Your task to perform on an android device: Open Youtube and go to the subscriptions tab Image 0: 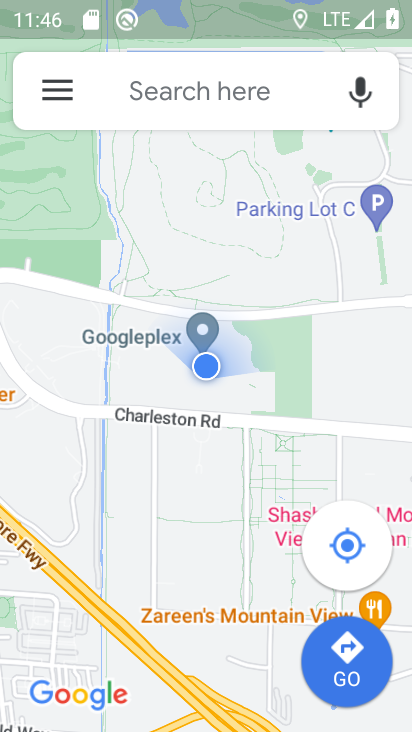
Step 0: press home button
Your task to perform on an android device: Open Youtube and go to the subscriptions tab Image 1: 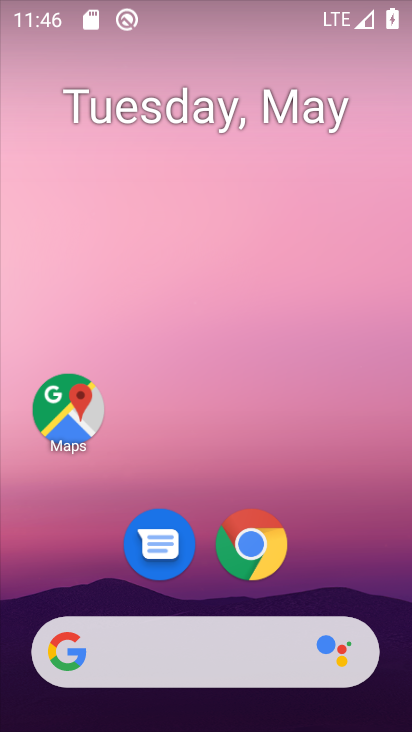
Step 1: drag from (211, 489) to (224, 203)
Your task to perform on an android device: Open Youtube and go to the subscriptions tab Image 2: 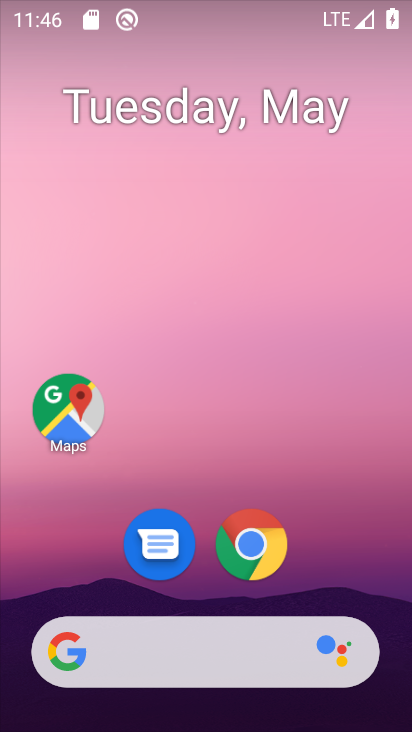
Step 2: drag from (234, 440) to (279, 90)
Your task to perform on an android device: Open Youtube and go to the subscriptions tab Image 3: 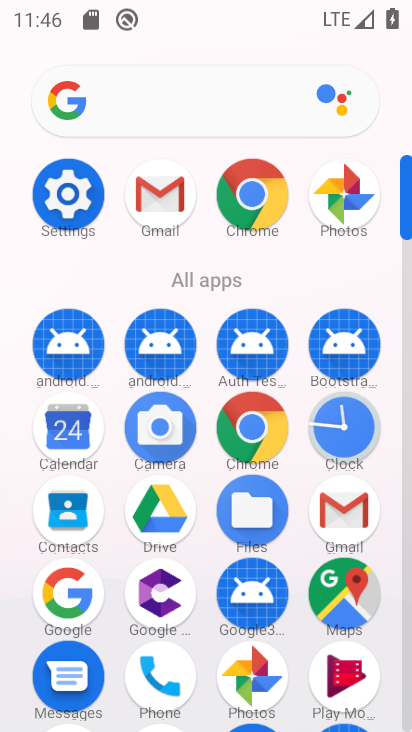
Step 3: drag from (206, 281) to (213, 46)
Your task to perform on an android device: Open Youtube and go to the subscriptions tab Image 4: 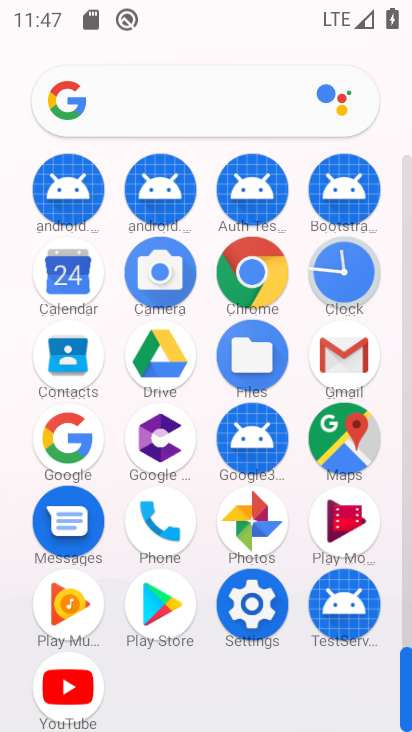
Step 4: drag from (211, 271) to (198, 76)
Your task to perform on an android device: Open Youtube and go to the subscriptions tab Image 5: 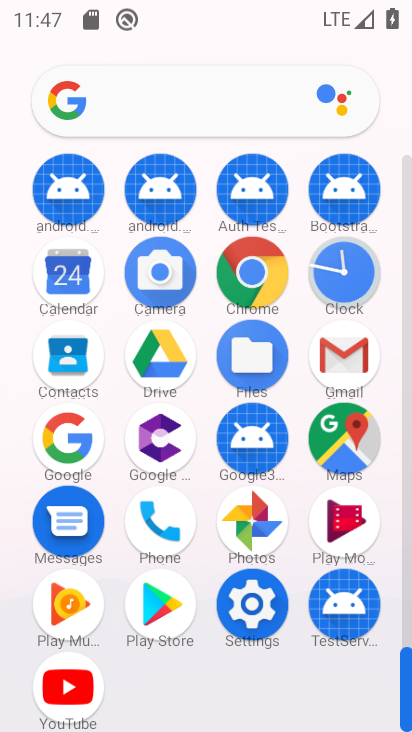
Step 5: click (80, 700)
Your task to perform on an android device: Open Youtube and go to the subscriptions tab Image 6: 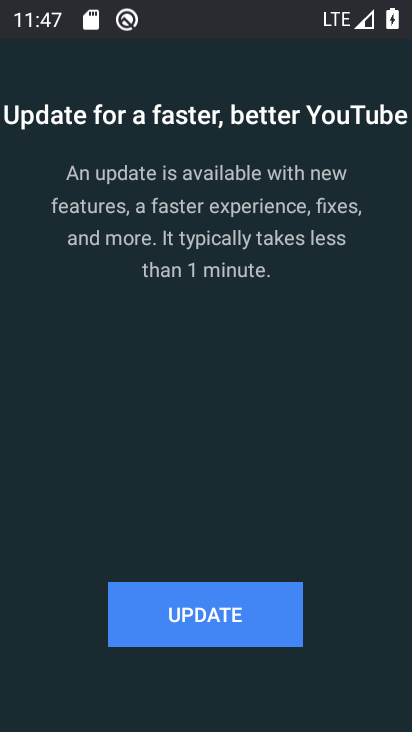
Step 6: click (195, 643)
Your task to perform on an android device: Open Youtube and go to the subscriptions tab Image 7: 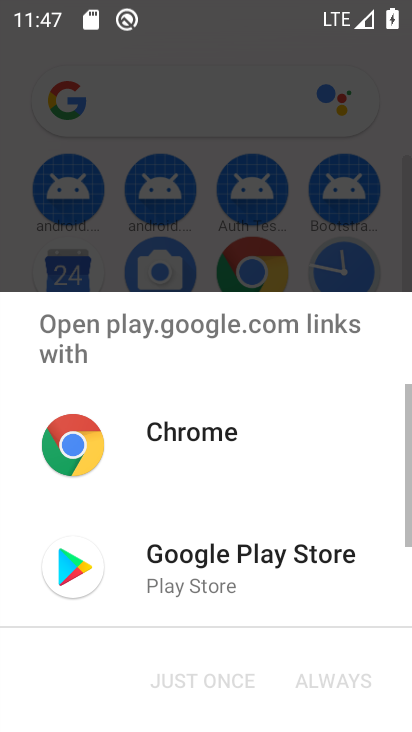
Step 7: click (168, 550)
Your task to perform on an android device: Open Youtube and go to the subscriptions tab Image 8: 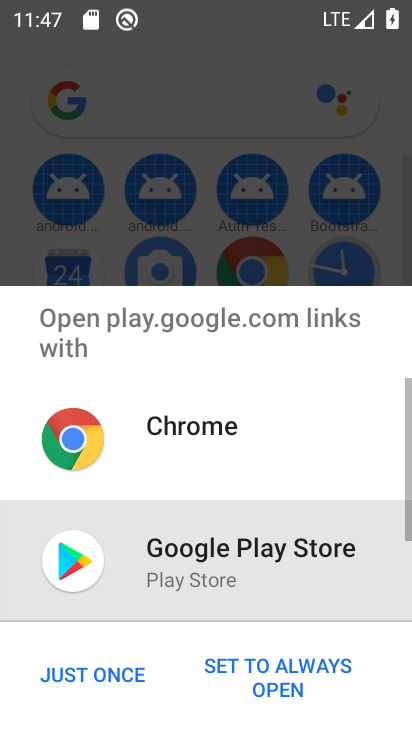
Step 8: click (172, 685)
Your task to perform on an android device: Open Youtube and go to the subscriptions tab Image 9: 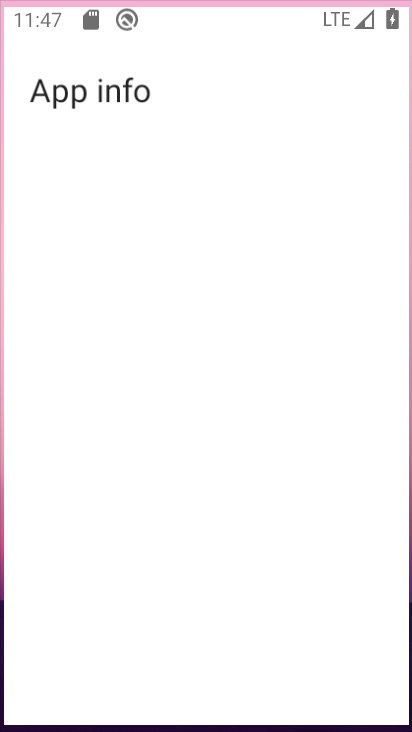
Step 9: click (114, 677)
Your task to perform on an android device: Open Youtube and go to the subscriptions tab Image 10: 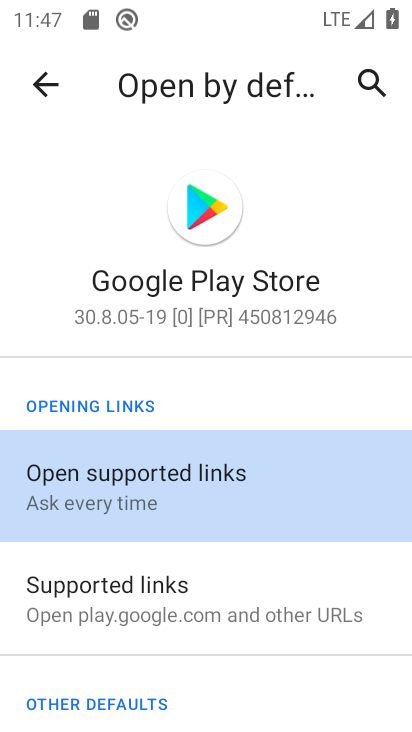
Step 10: press back button
Your task to perform on an android device: Open Youtube and go to the subscriptions tab Image 11: 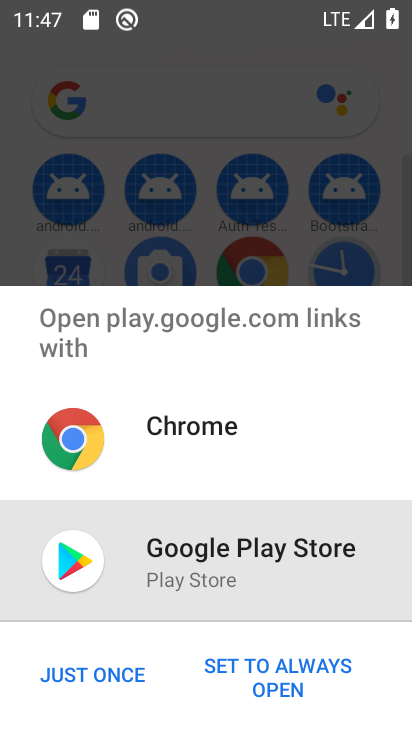
Step 11: click (78, 679)
Your task to perform on an android device: Open Youtube and go to the subscriptions tab Image 12: 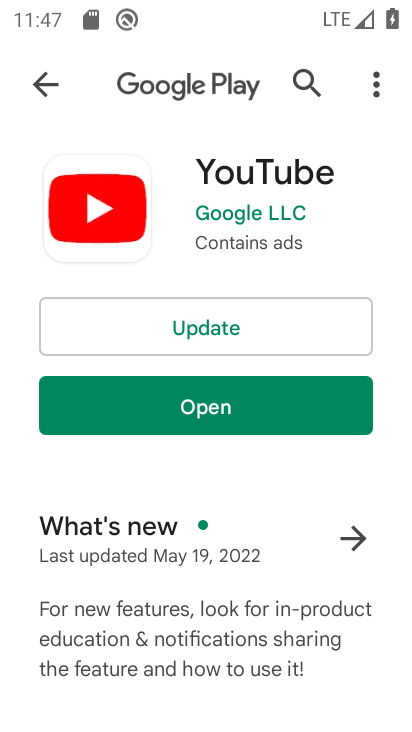
Step 12: click (186, 320)
Your task to perform on an android device: Open Youtube and go to the subscriptions tab Image 13: 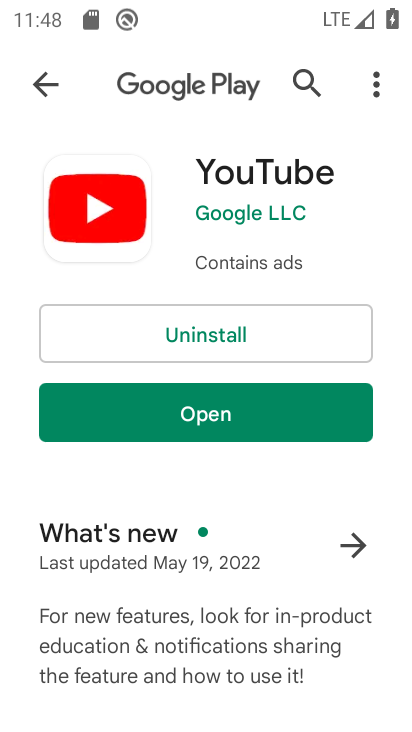
Step 13: click (228, 410)
Your task to perform on an android device: Open Youtube and go to the subscriptions tab Image 14: 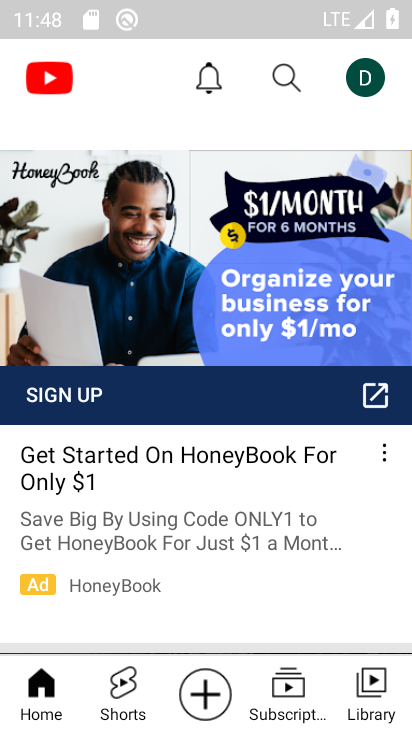
Step 14: click (284, 694)
Your task to perform on an android device: Open Youtube and go to the subscriptions tab Image 15: 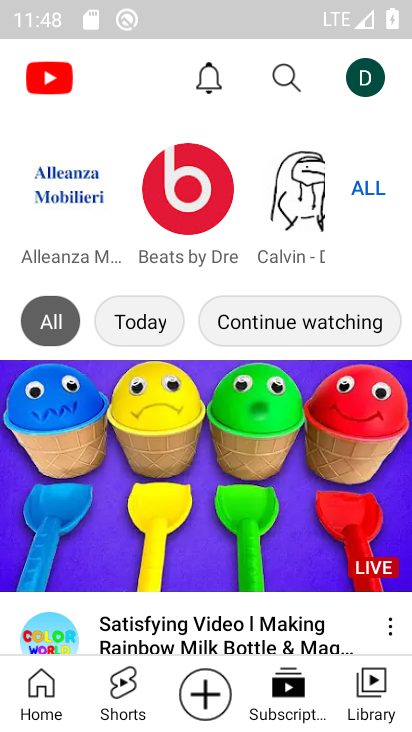
Step 15: task complete